Your task to perform on an android device: Go to Yahoo.com Image 0: 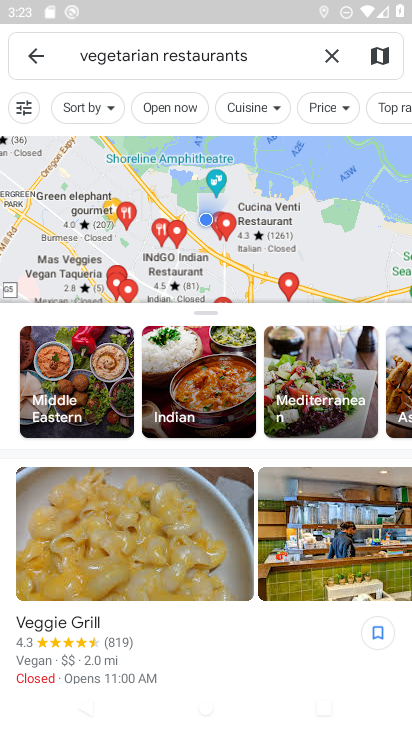
Step 0: press home button
Your task to perform on an android device: Go to Yahoo.com Image 1: 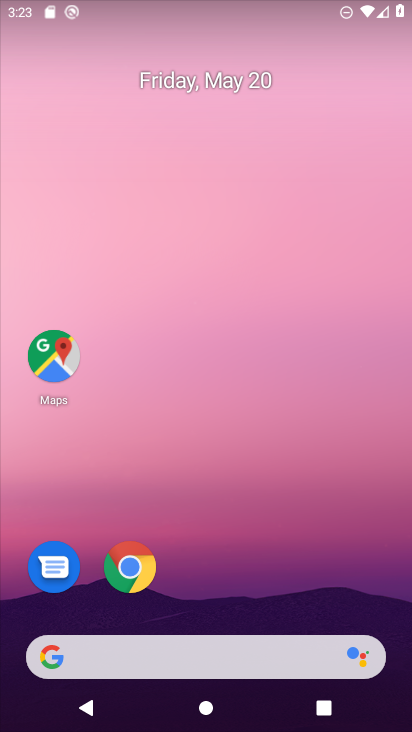
Step 1: drag from (229, 725) to (229, 145)
Your task to perform on an android device: Go to Yahoo.com Image 2: 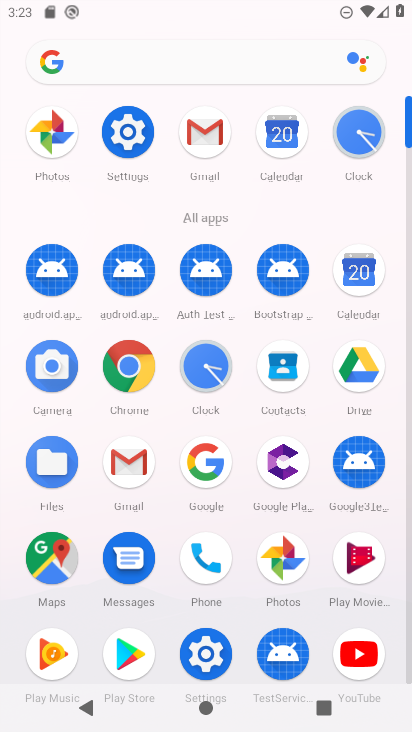
Step 2: click (127, 375)
Your task to perform on an android device: Go to Yahoo.com Image 3: 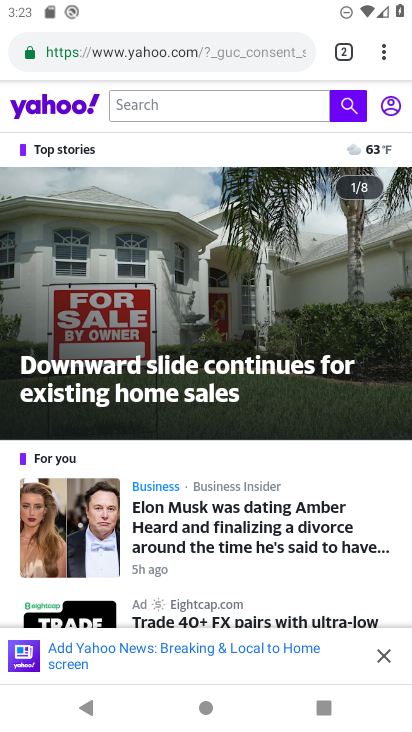
Step 3: task complete